Your task to perform on an android device: check battery use Image 0: 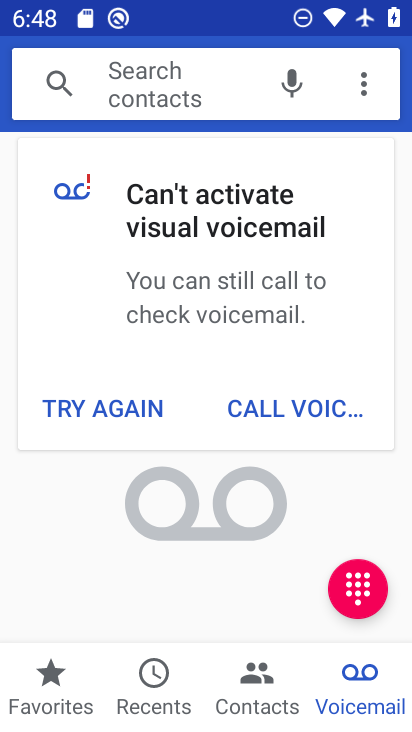
Step 0: press home button
Your task to perform on an android device: check battery use Image 1: 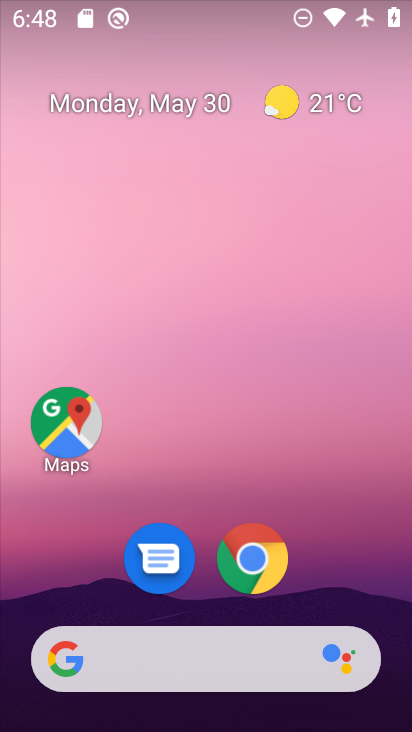
Step 1: drag from (355, 534) to (290, 50)
Your task to perform on an android device: check battery use Image 2: 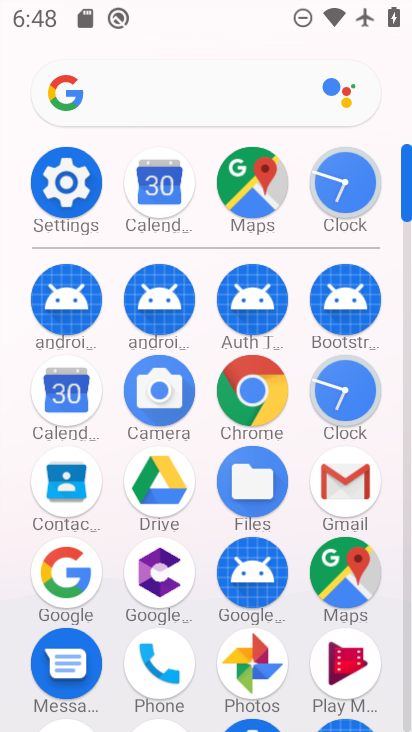
Step 2: click (64, 184)
Your task to perform on an android device: check battery use Image 3: 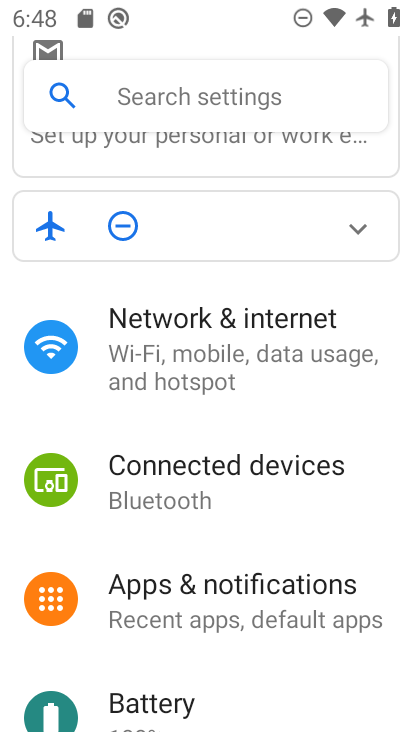
Step 3: click (120, 709)
Your task to perform on an android device: check battery use Image 4: 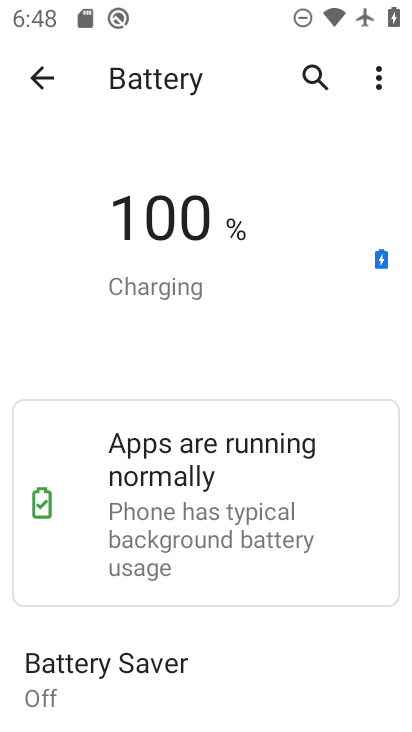
Step 4: task complete